Your task to perform on an android device: turn on notifications settings in the gmail app Image 0: 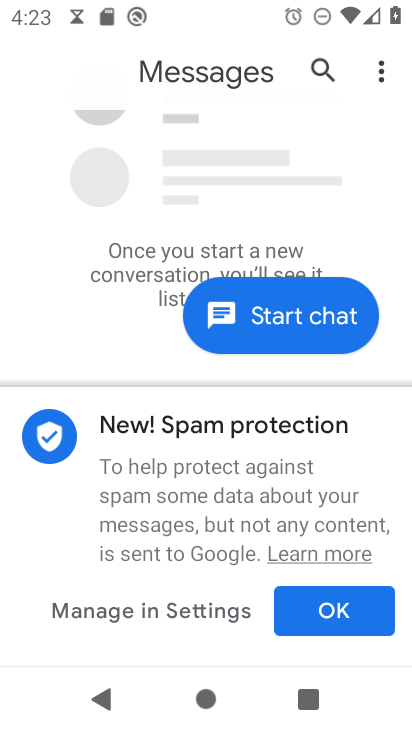
Step 0: press home button
Your task to perform on an android device: turn on notifications settings in the gmail app Image 1: 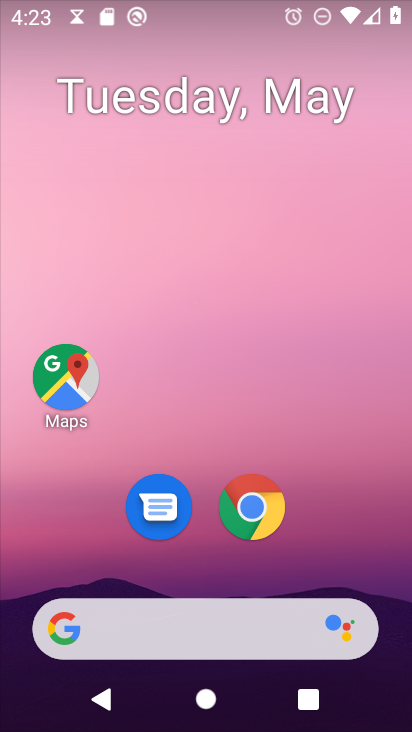
Step 1: drag from (229, 576) to (149, 65)
Your task to perform on an android device: turn on notifications settings in the gmail app Image 2: 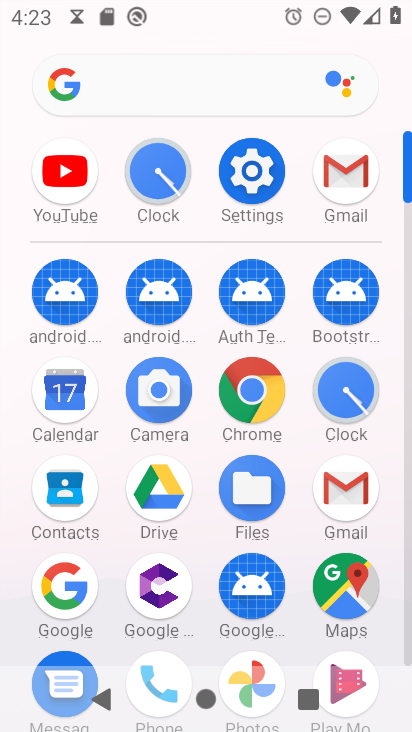
Step 2: click (344, 165)
Your task to perform on an android device: turn on notifications settings in the gmail app Image 3: 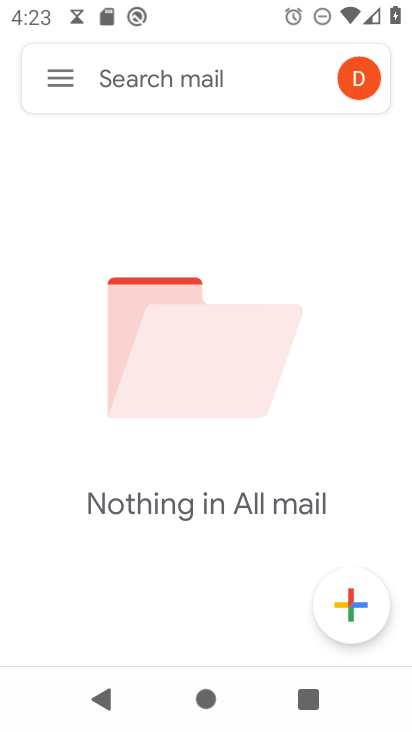
Step 3: click (53, 75)
Your task to perform on an android device: turn on notifications settings in the gmail app Image 4: 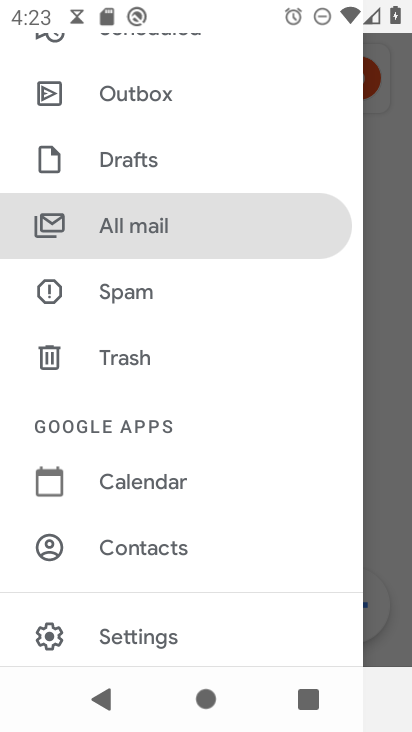
Step 4: click (114, 647)
Your task to perform on an android device: turn on notifications settings in the gmail app Image 5: 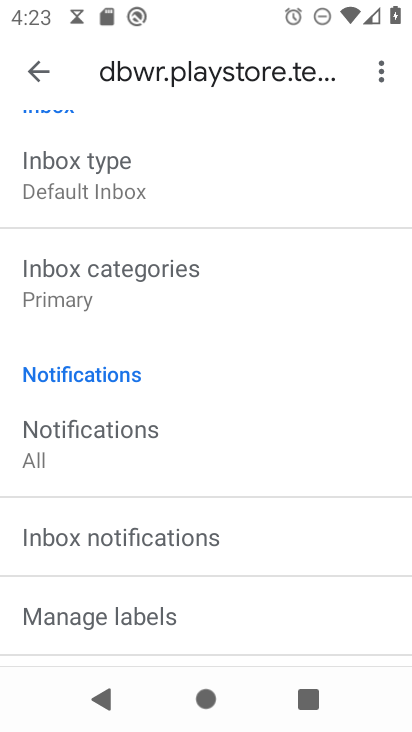
Step 5: drag from (152, 581) to (150, 313)
Your task to perform on an android device: turn on notifications settings in the gmail app Image 6: 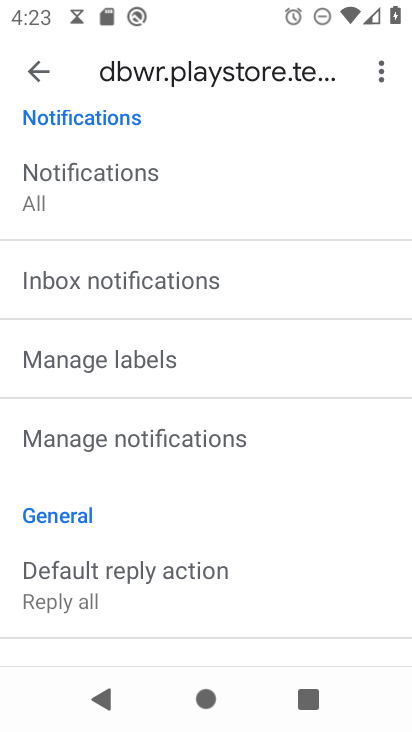
Step 6: click (99, 447)
Your task to perform on an android device: turn on notifications settings in the gmail app Image 7: 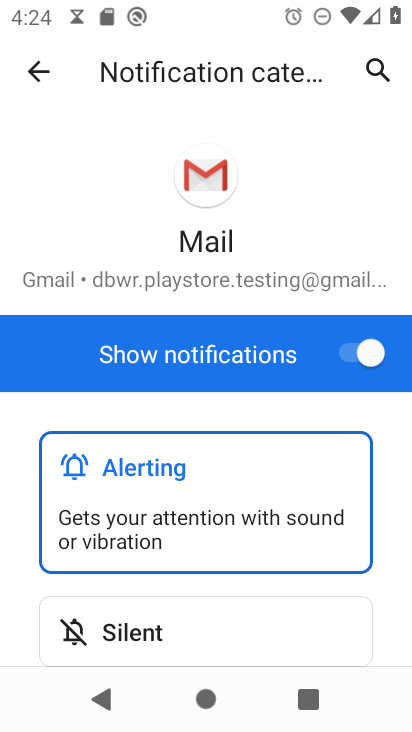
Step 7: task complete